Your task to perform on an android device: Go to Google maps Image 0: 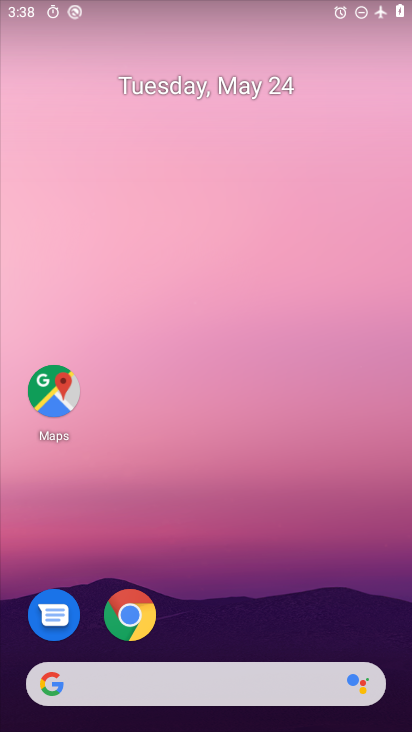
Step 0: click (47, 407)
Your task to perform on an android device: Go to Google maps Image 1: 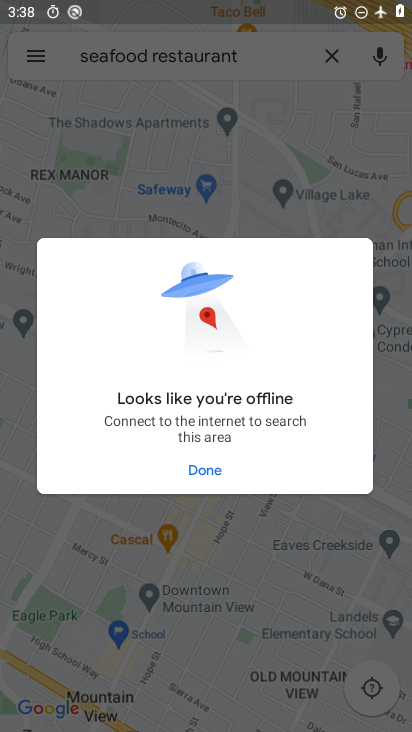
Step 1: click (213, 471)
Your task to perform on an android device: Go to Google maps Image 2: 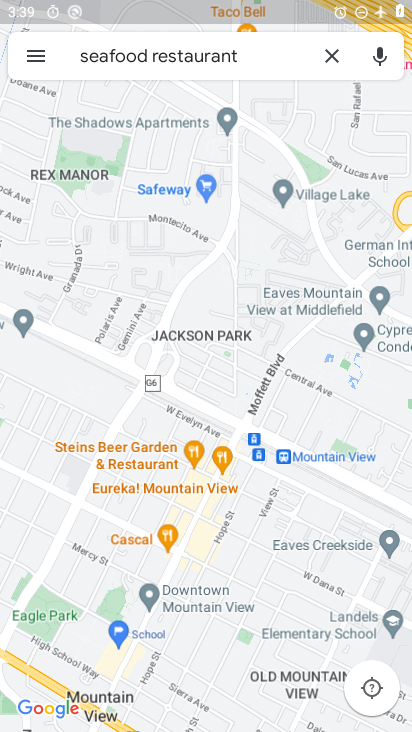
Step 2: click (337, 57)
Your task to perform on an android device: Go to Google maps Image 3: 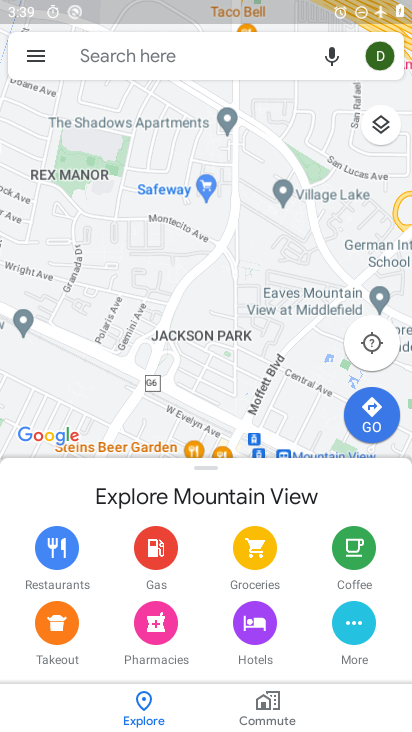
Step 3: task complete